Your task to perform on an android device: open app "PUBG MOBILE" Image 0: 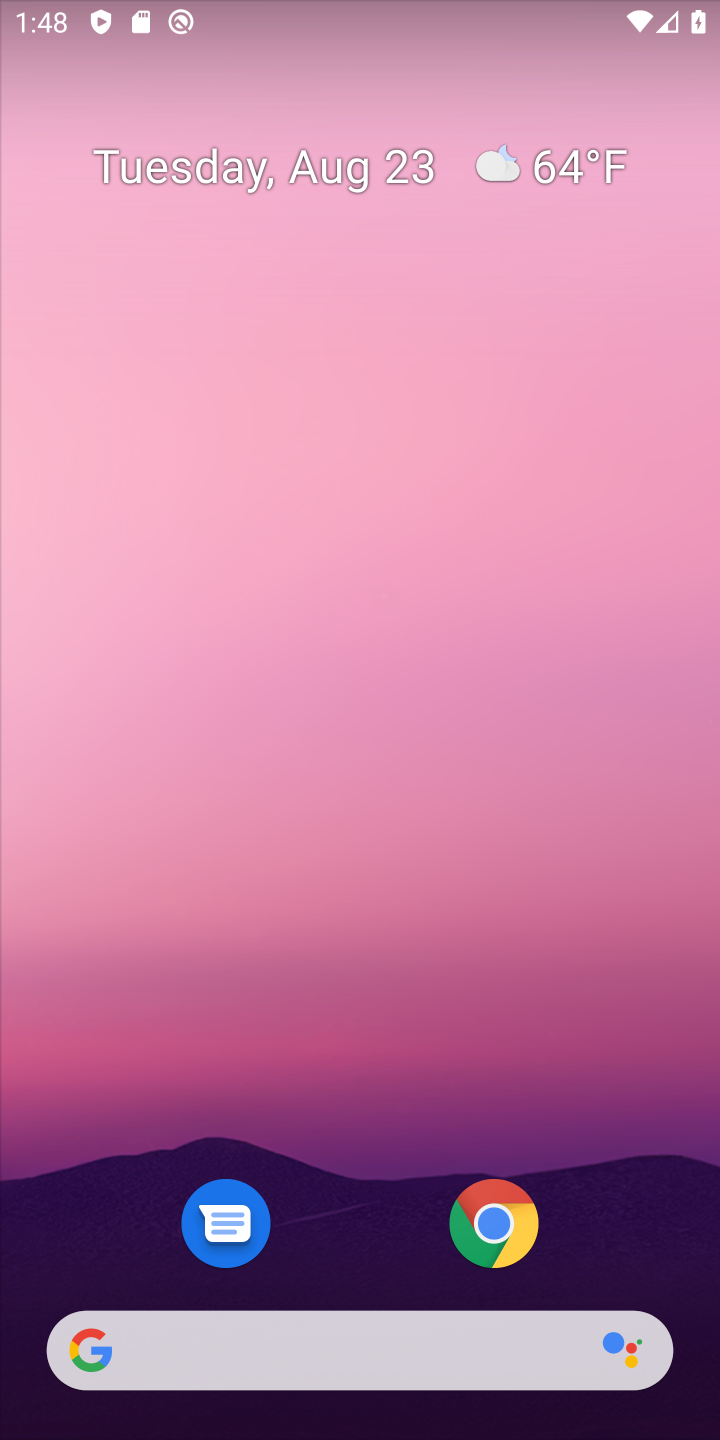
Step 0: drag from (357, 1200) to (515, 138)
Your task to perform on an android device: open app "PUBG MOBILE" Image 1: 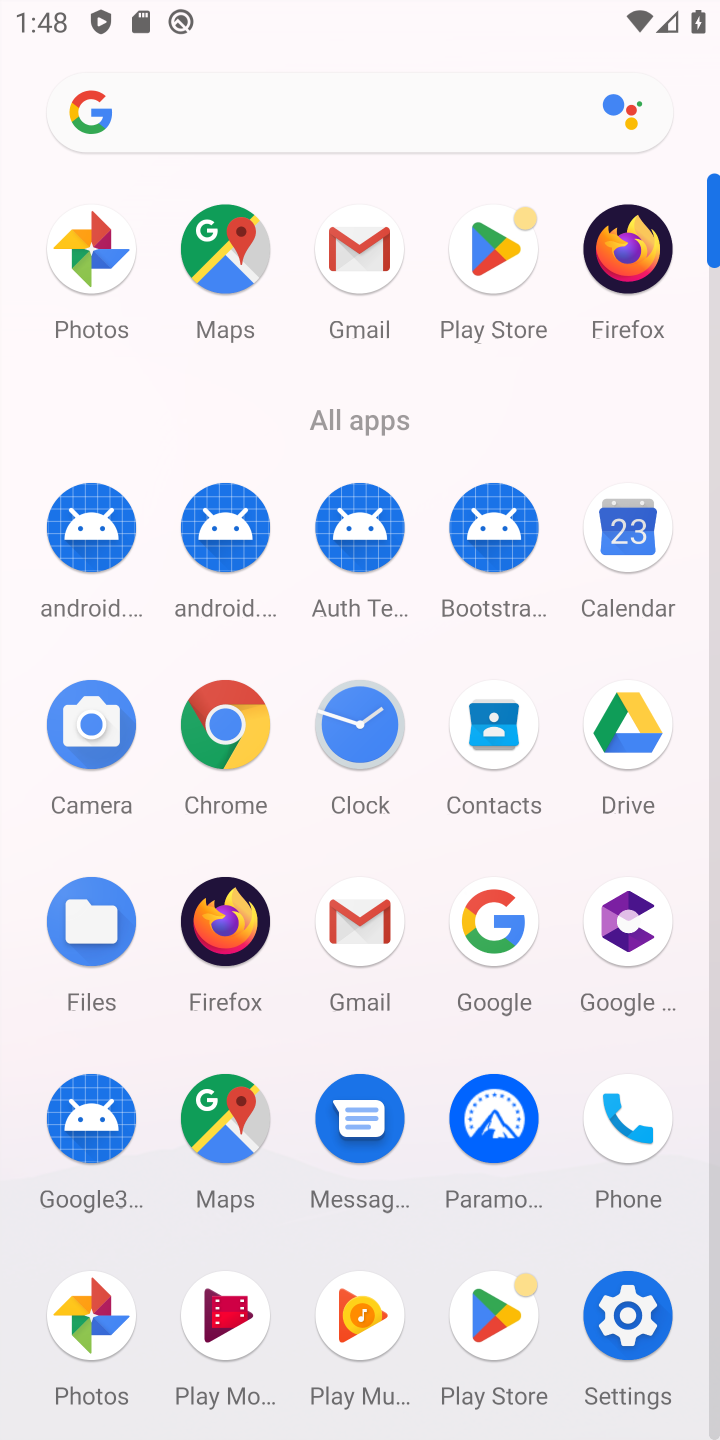
Step 1: click (494, 224)
Your task to perform on an android device: open app "PUBG MOBILE" Image 2: 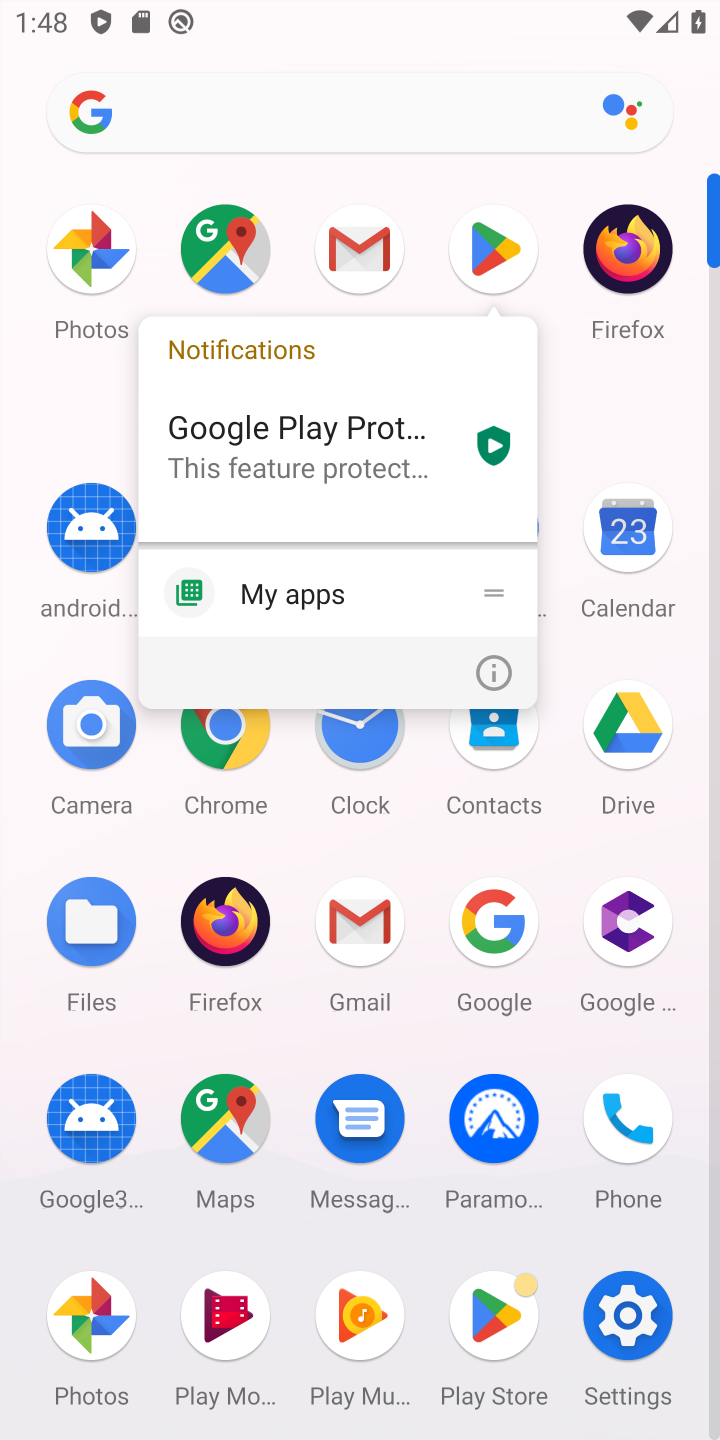
Step 2: click (498, 268)
Your task to perform on an android device: open app "PUBG MOBILE" Image 3: 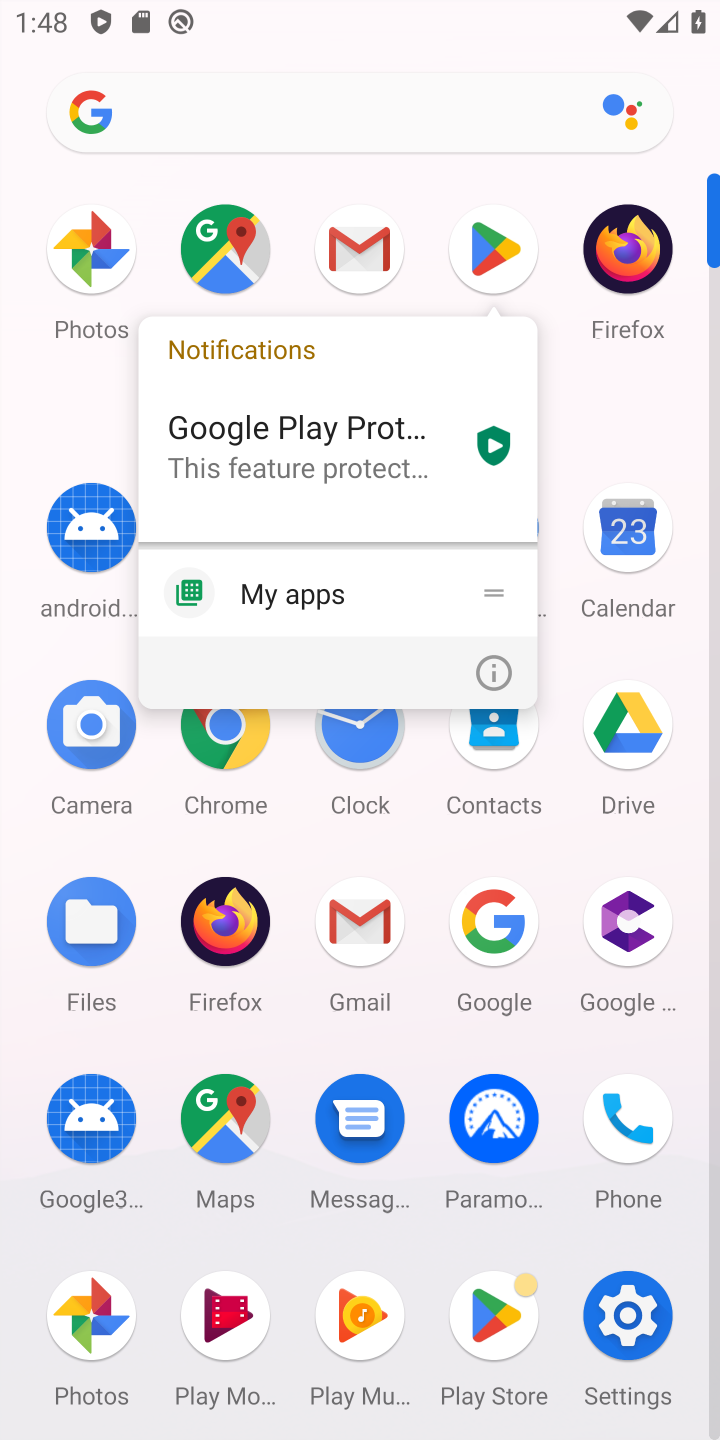
Step 3: click (500, 245)
Your task to perform on an android device: open app "PUBG MOBILE" Image 4: 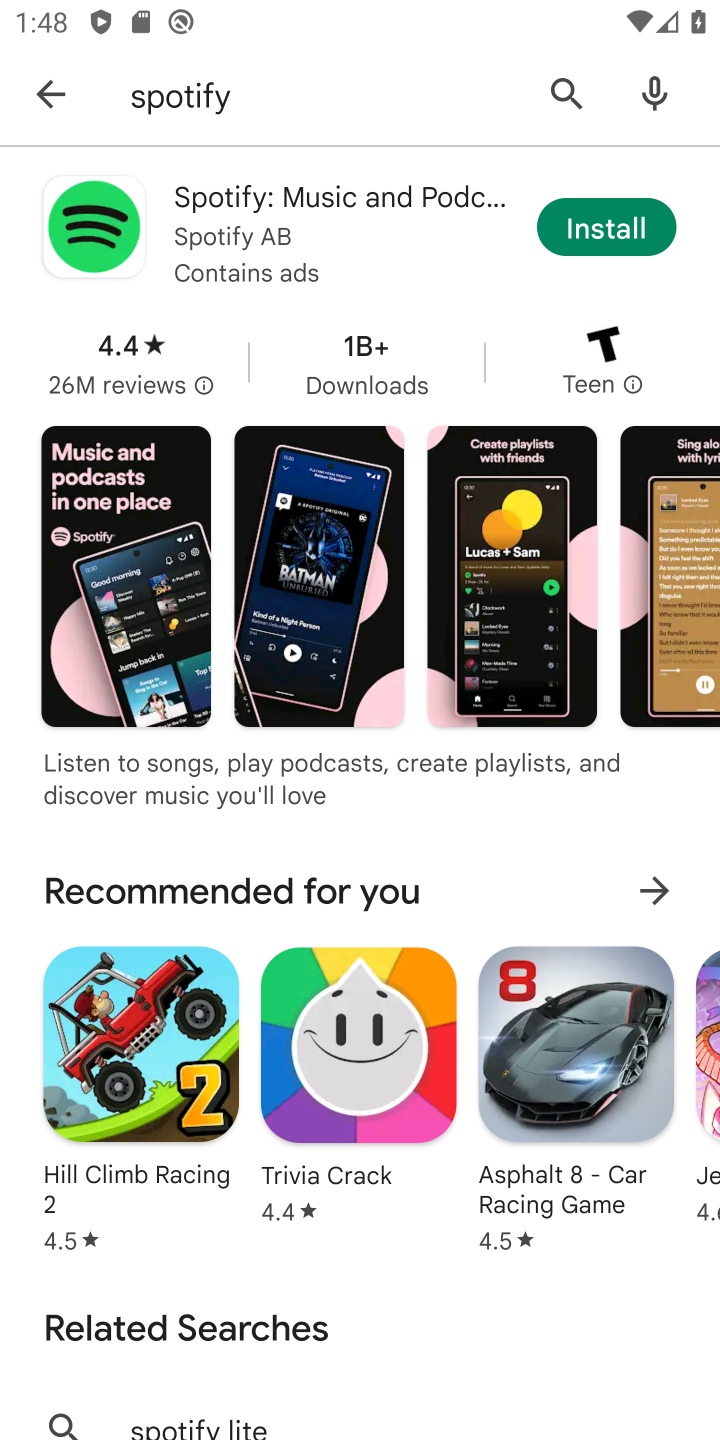
Step 4: click (570, 81)
Your task to perform on an android device: open app "PUBG MOBILE" Image 5: 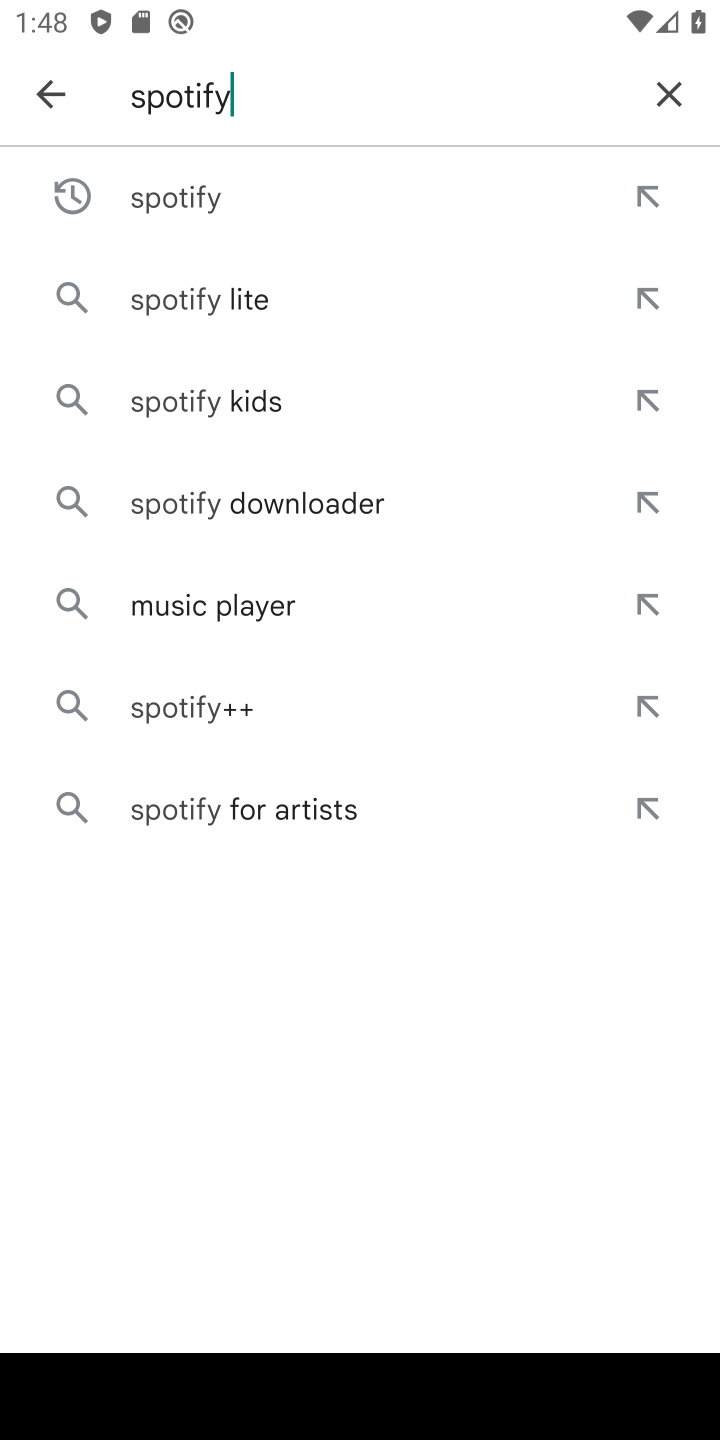
Step 5: click (660, 84)
Your task to perform on an android device: open app "PUBG MOBILE" Image 6: 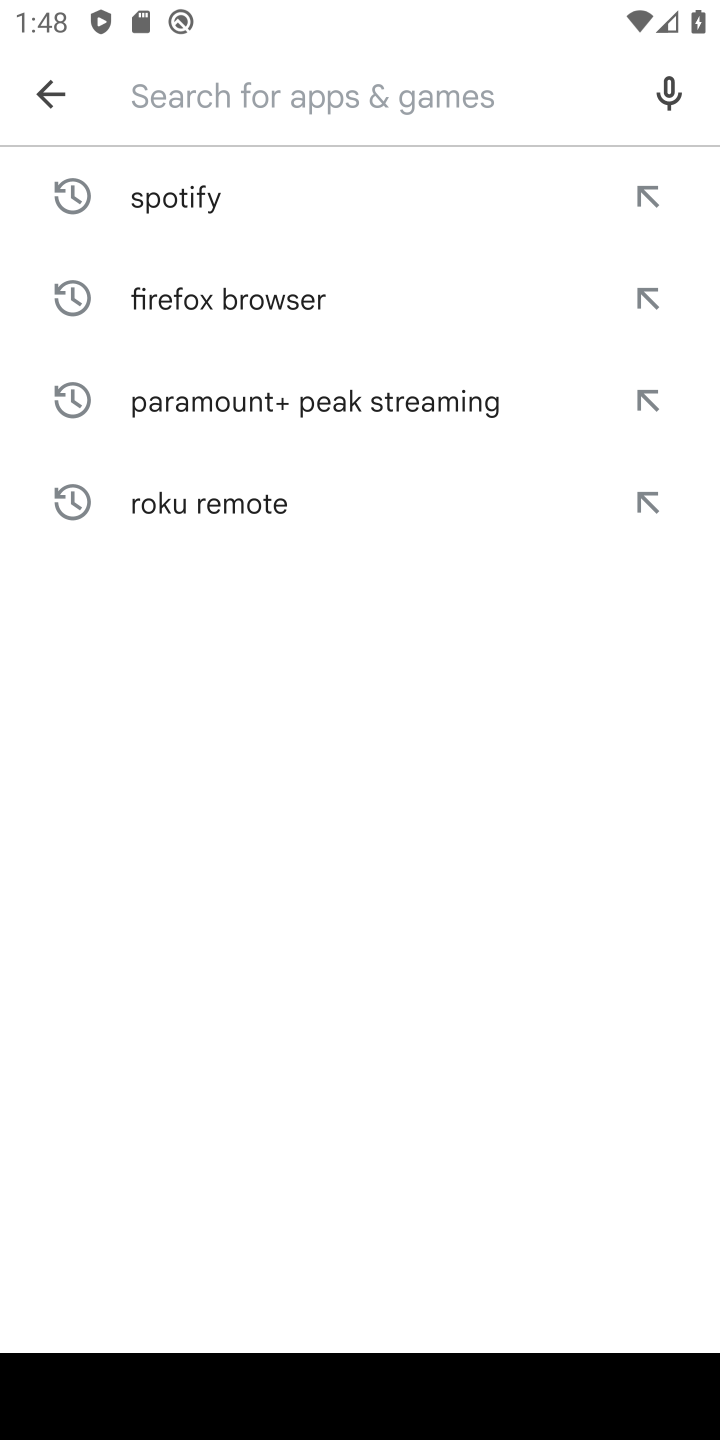
Step 6: click (278, 79)
Your task to perform on an android device: open app "PUBG MOBILE" Image 7: 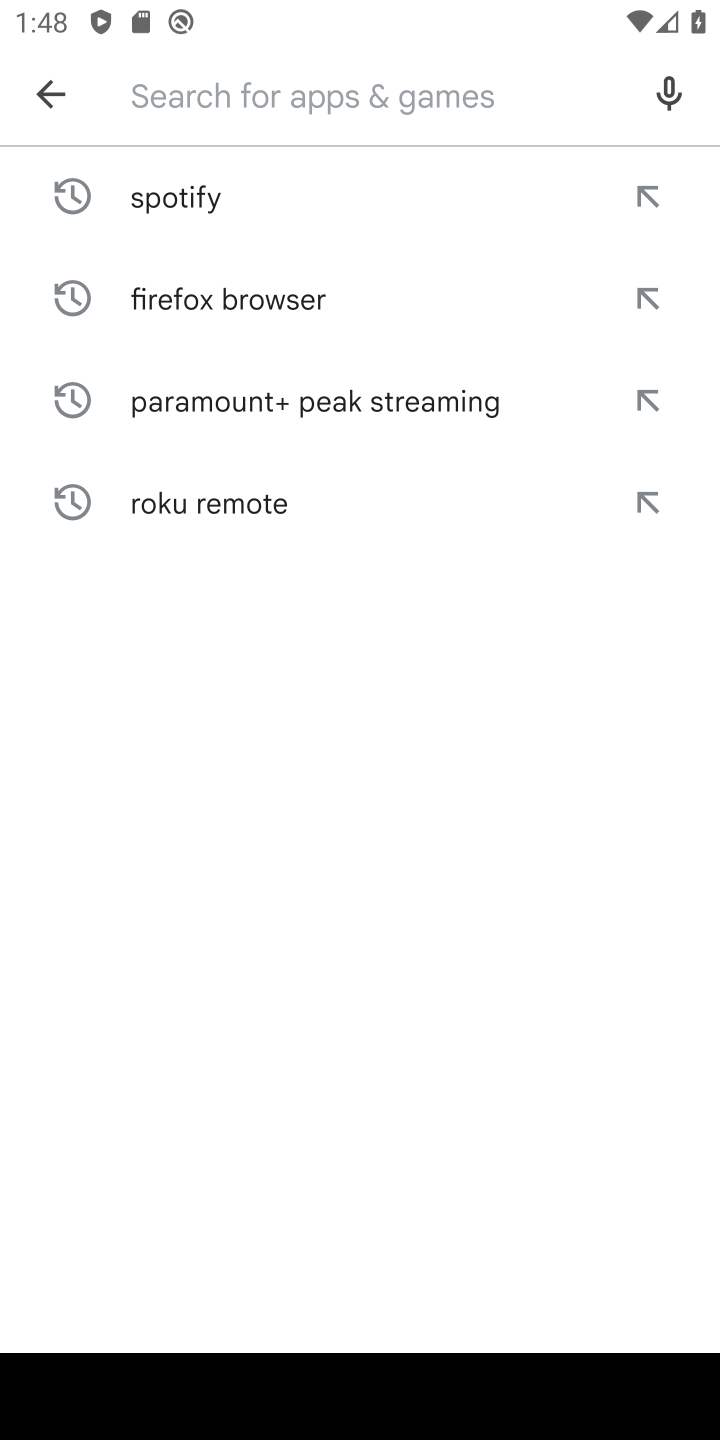
Step 7: type "PUBG MOBILE"
Your task to perform on an android device: open app "PUBG MOBILE" Image 8: 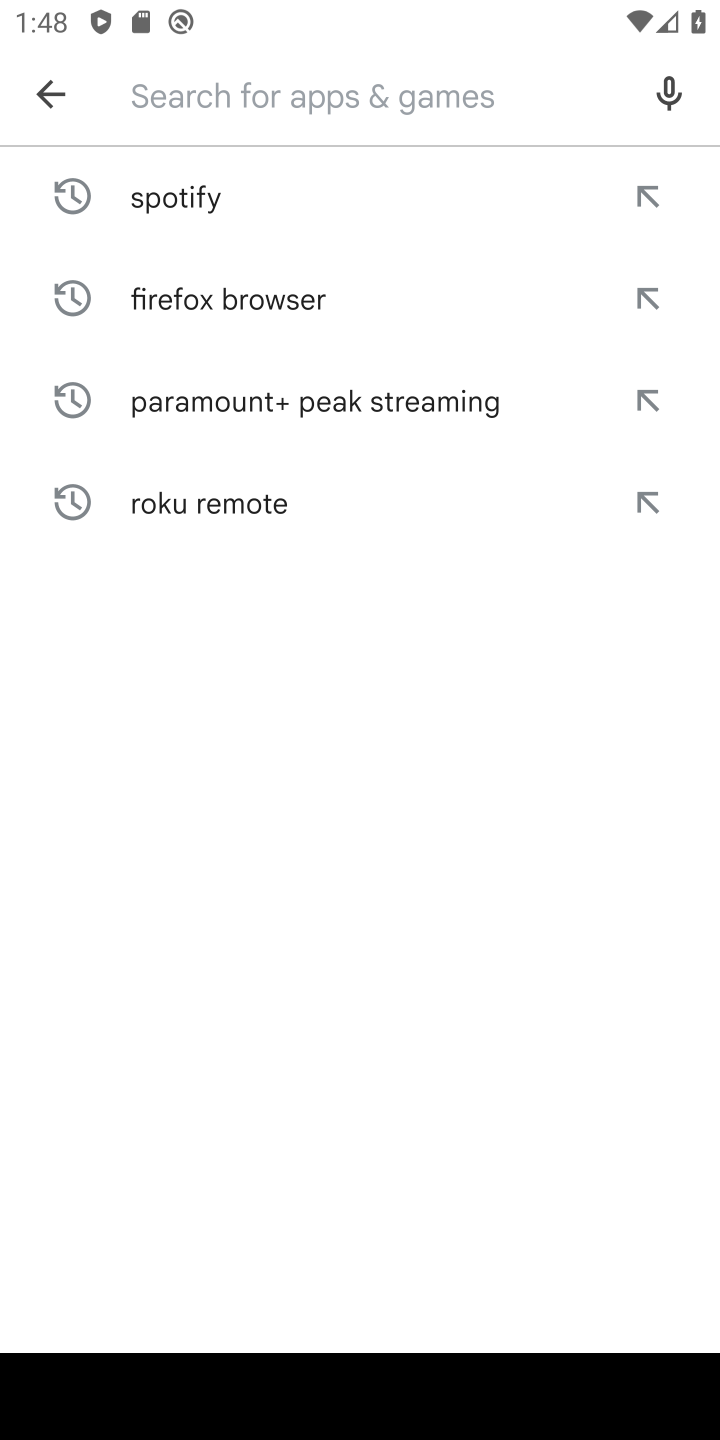
Step 8: click (268, 983)
Your task to perform on an android device: open app "PUBG MOBILE" Image 9: 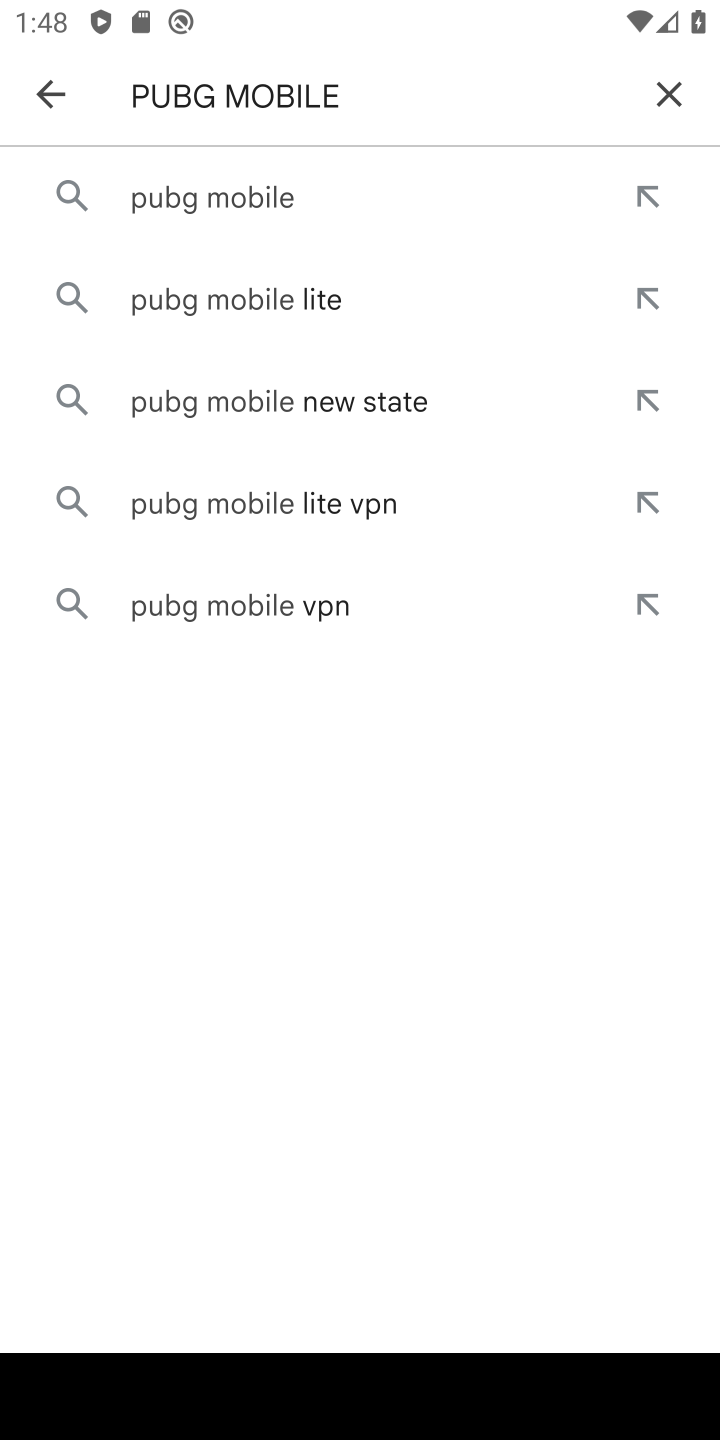
Step 9: click (228, 201)
Your task to perform on an android device: open app "PUBG MOBILE" Image 10: 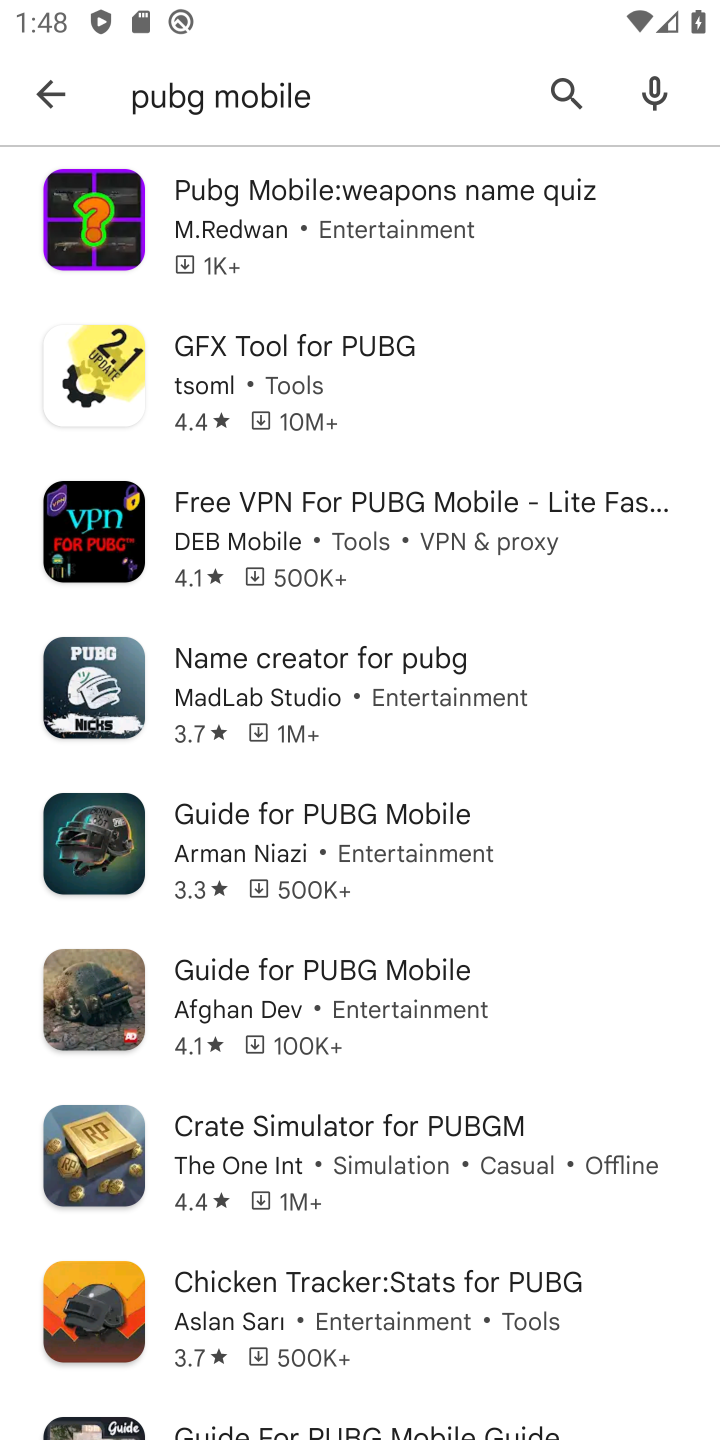
Step 10: task complete